Your task to perform on an android device: Search for Italian restaurants on Maps Image 0: 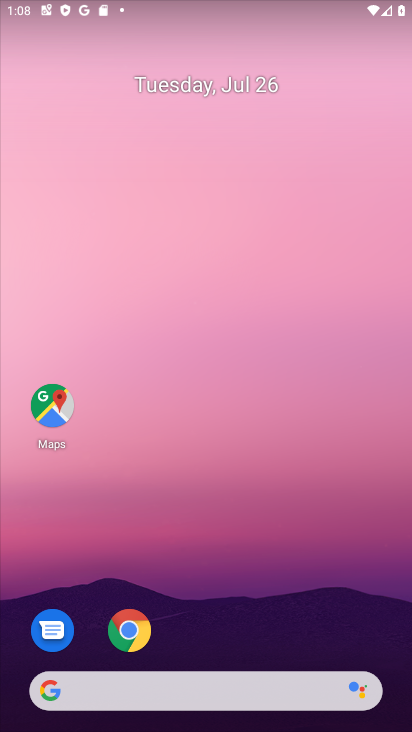
Step 0: click (56, 403)
Your task to perform on an android device: Search for Italian restaurants on Maps Image 1: 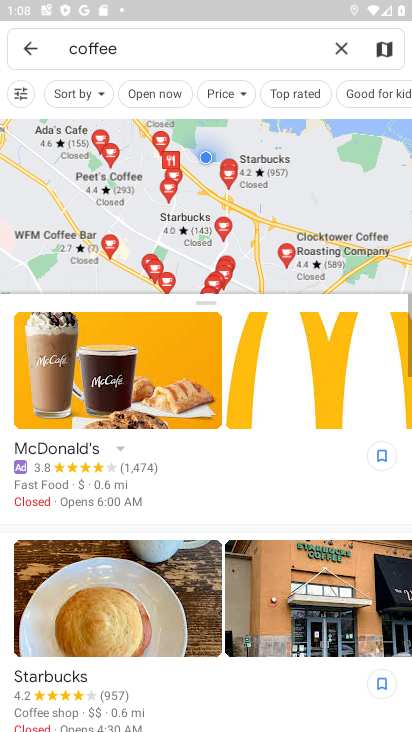
Step 1: click (341, 43)
Your task to perform on an android device: Search for Italian restaurants on Maps Image 2: 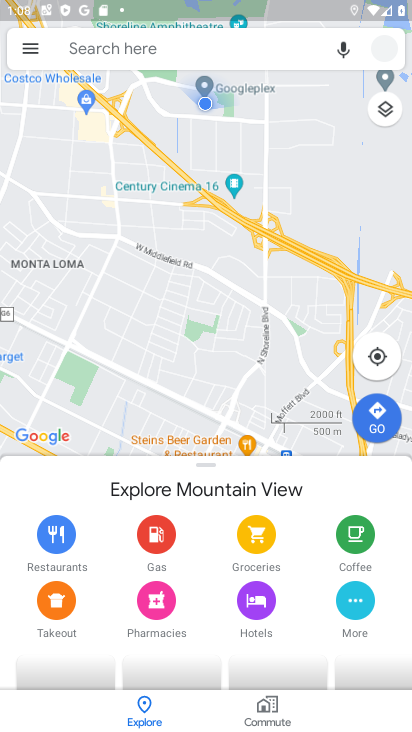
Step 2: click (215, 38)
Your task to perform on an android device: Search for Italian restaurants on Maps Image 3: 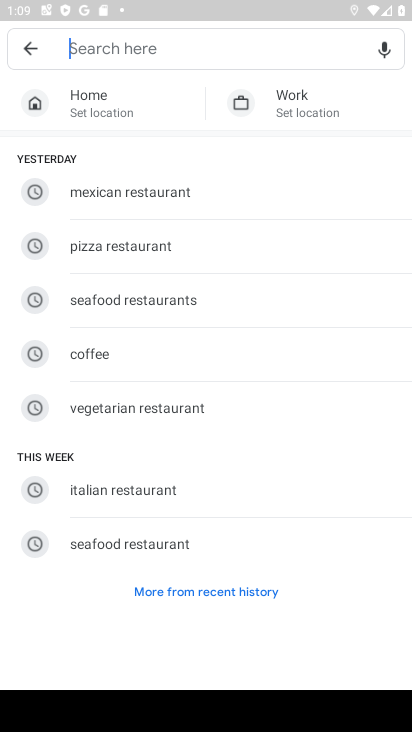
Step 3: click (134, 483)
Your task to perform on an android device: Search for Italian restaurants on Maps Image 4: 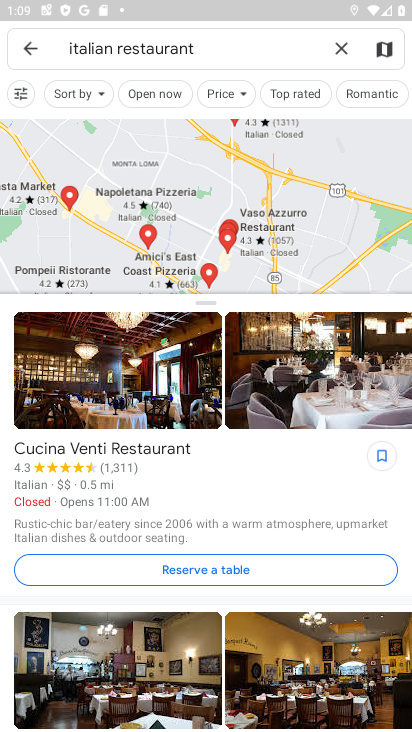
Step 4: task complete